Your task to perform on an android device: Go to Android settings Image 0: 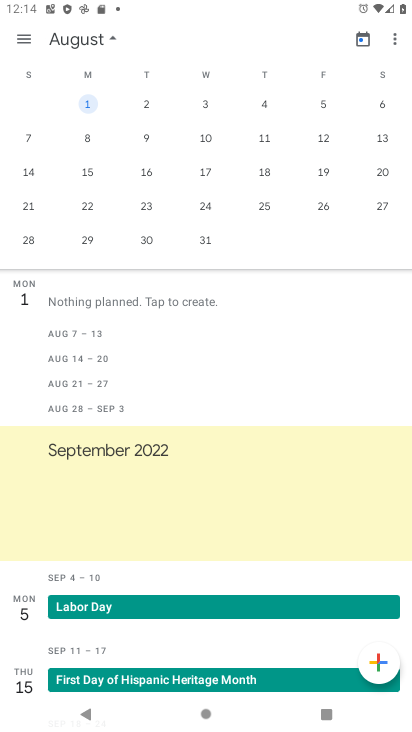
Step 0: press home button
Your task to perform on an android device: Go to Android settings Image 1: 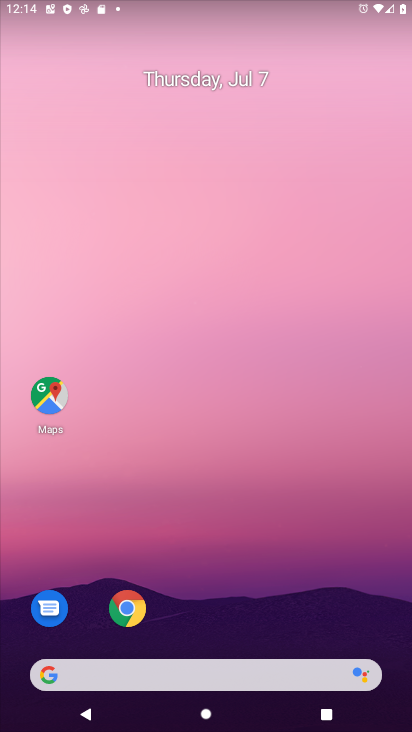
Step 1: drag from (155, 634) to (154, 142)
Your task to perform on an android device: Go to Android settings Image 2: 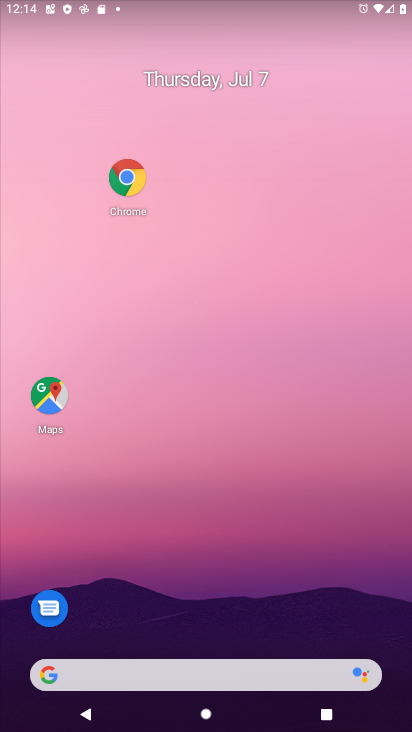
Step 2: drag from (219, 650) to (314, 182)
Your task to perform on an android device: Go to Android settings Image 3: 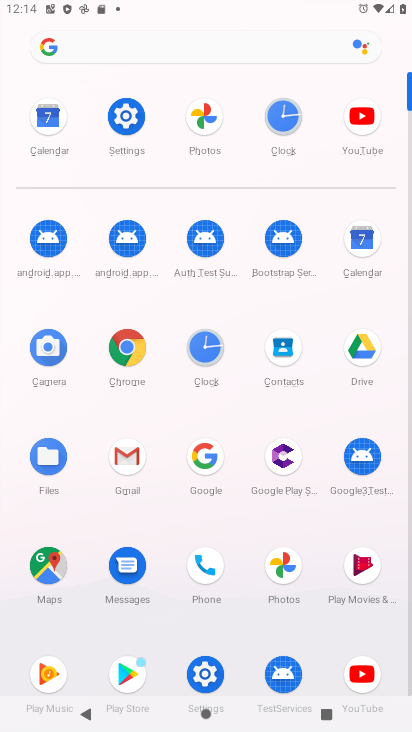
Step 3: click (110, 129)
Your task to perform on an android device: Go to Android settings Image 4: 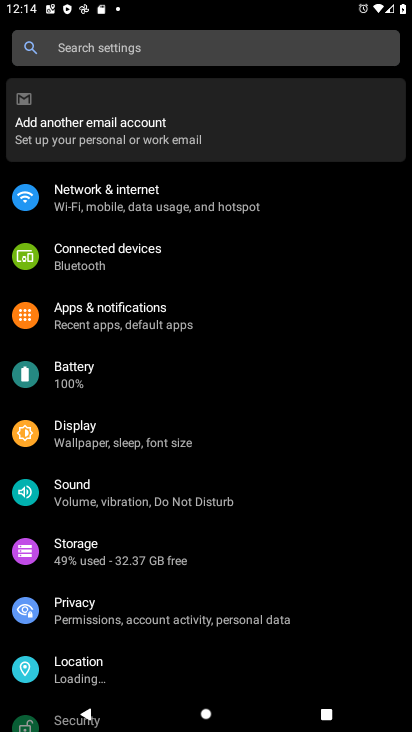
Step 4: task complete